Your task to perform on an android device: change notifications settings Image 0: 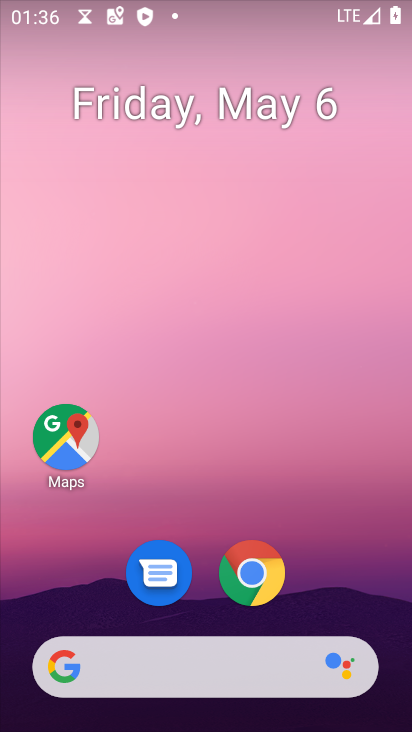
Step 0: drag from (303, 527) to (271, 282)
Your task to perform on an android device: change notifications settings Image 1: 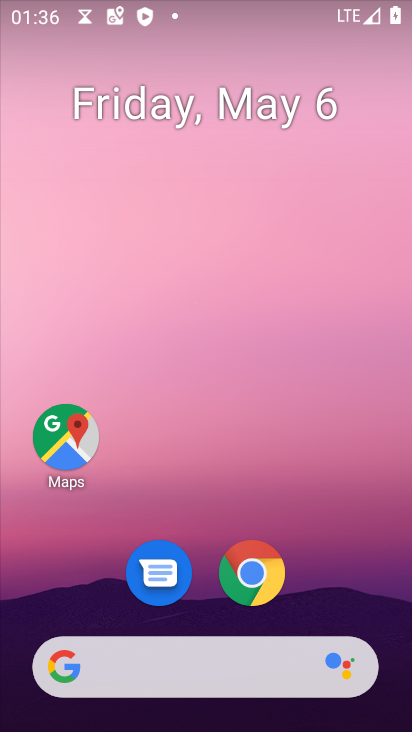
Step 1: drag from (340, 579) to (324, 259)
Your task to perform on an android device: change notifications settings Image 2: 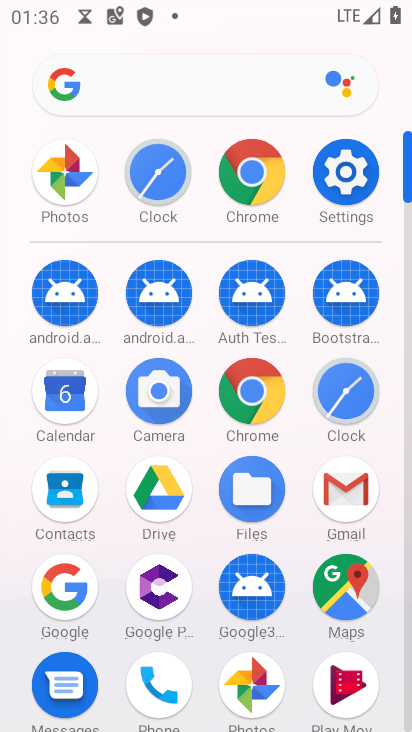
Step 2: click (351, 156)
Your task to perform on an android device: change notifications settings Image 3: 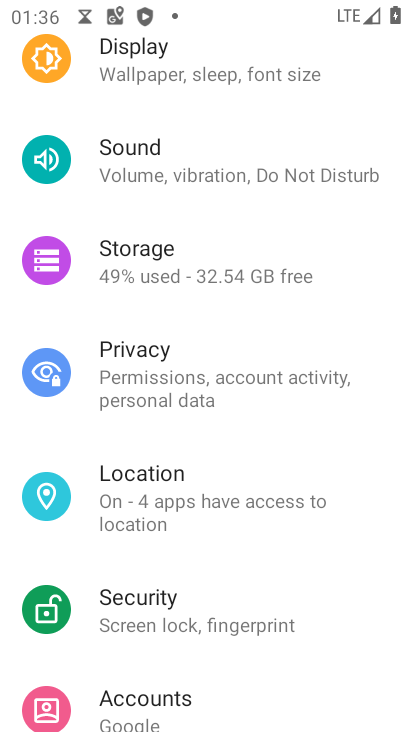
Step 3: drag from (198, 105) to (202, 563)
Your task to perform on an android device: change notifications settings Image 4: 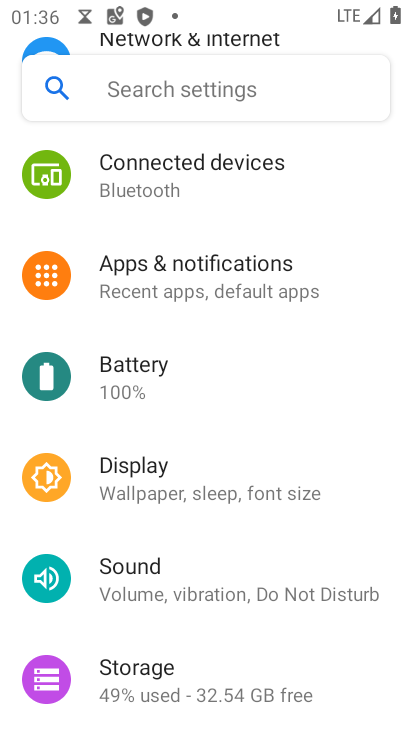
Step 4: click (191, 262)
Your task to perform on an android device: change notifications settings Image 5: 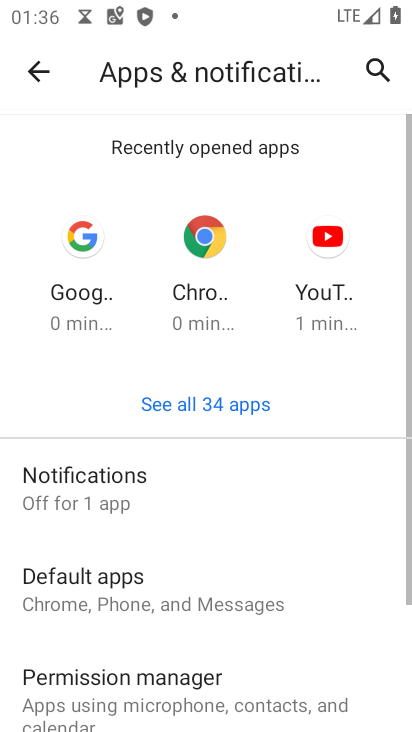
Step 5: click (101, 477)
Your task to perform on an android device: change notifications settings Image 6: 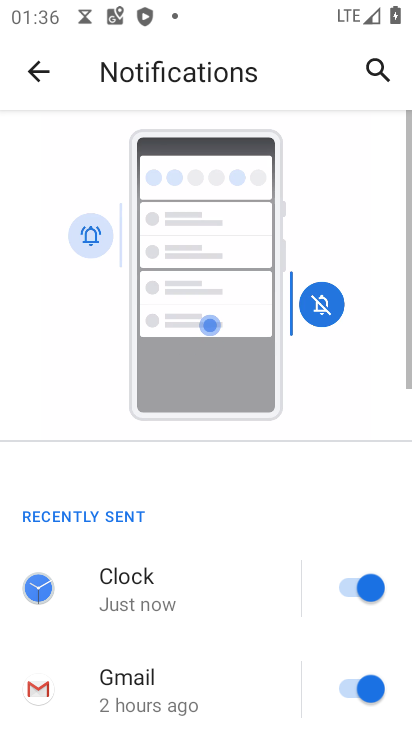
Step 6: drag from (269, 624) to (325, 252)
Your task to perform on an android device: change notifications settings Image 7: 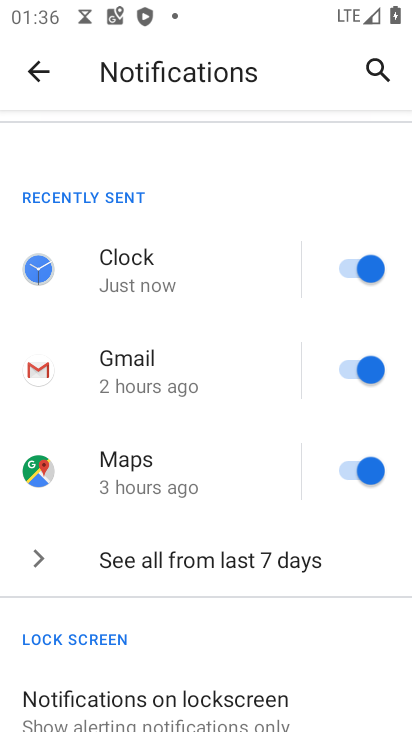
Step 7: click (227, 557)
Your task to perform on an android device: change notifications settings Image 8: 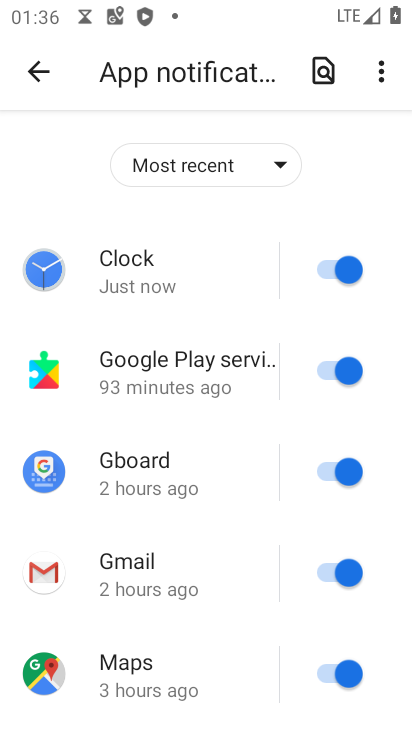
Step 8: click (328, 282)
Your task to perform on an android device: change notifications settings Image 9: 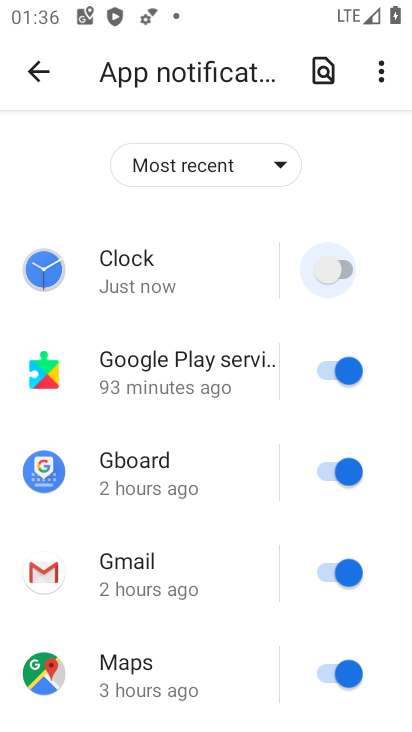
Step 9: click (314, 376)
Your task to perform on an android device: change notifications settings Image 10: 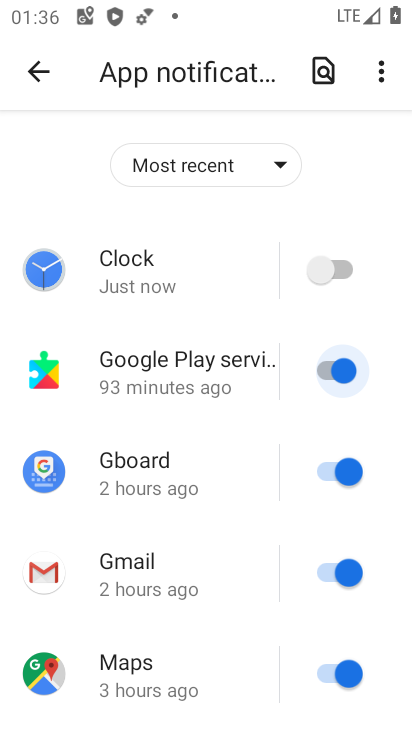
Step 10: click (329, 459)
Your task to perform on an android device: change notifications settings Image 11: 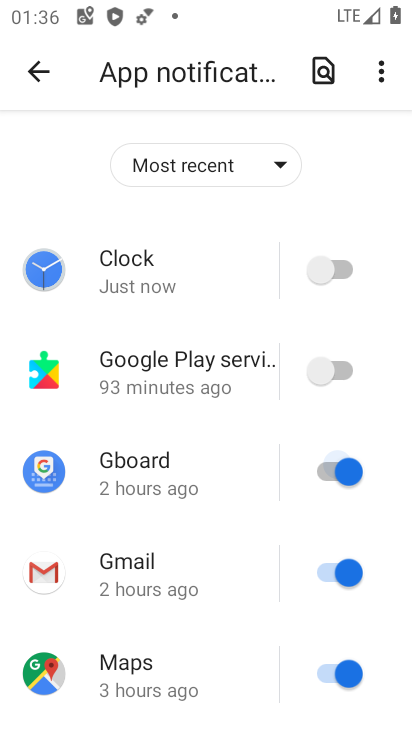
Step 11: click (333, 552)
Your task to perform on an android device: change notifications settings Image 12: 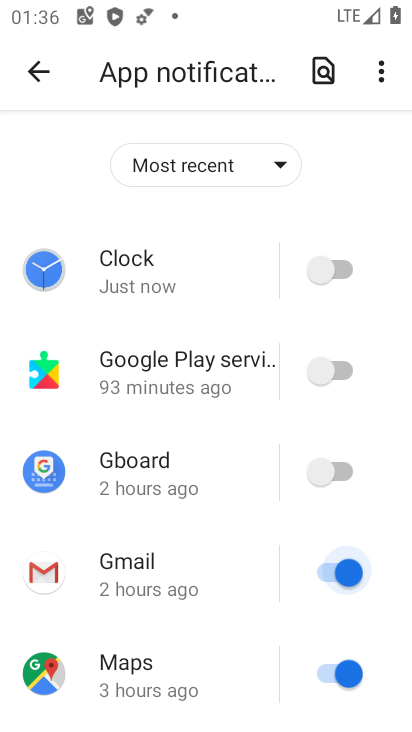
Step 12: click (334, 651)
Your task to perform on an android device: change notifications settings Image 13: 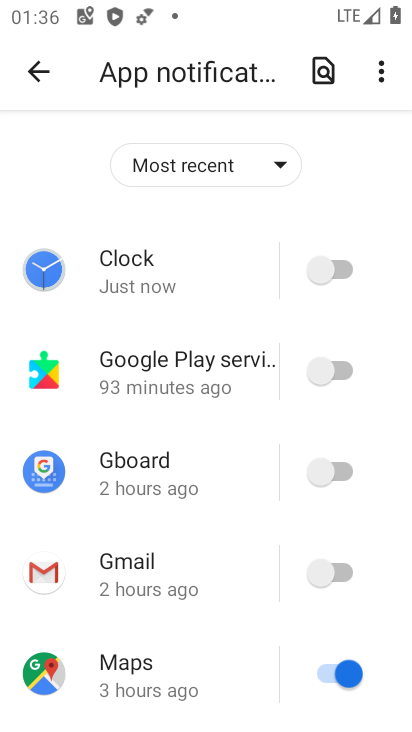
Step 13: drag from (233, 645) to (249, 170)
Your task to perform on an android device: change notifications settings Image 14: 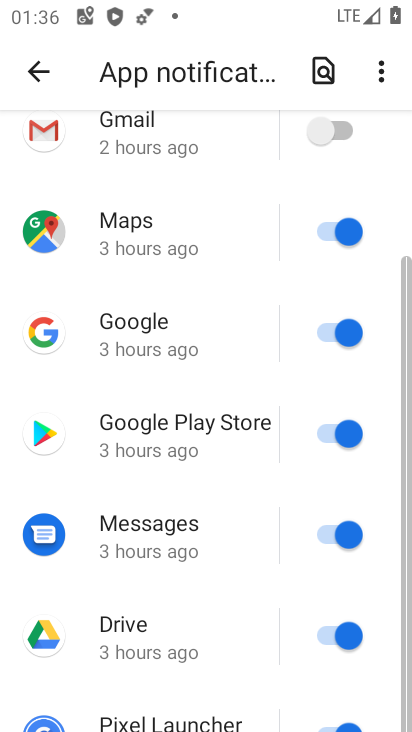
Step 14: click (309, 225)
Your task to perform on an android device: change notifications settings Image 15: 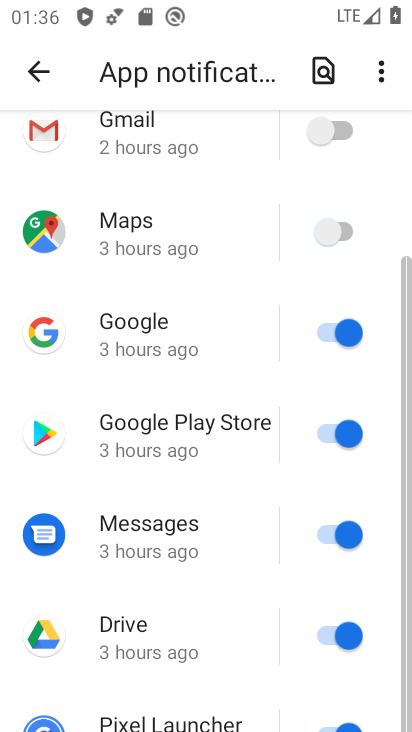
Step 15: click (340, 333)
Your task to perform on an android device: change notifications settings Image 16: 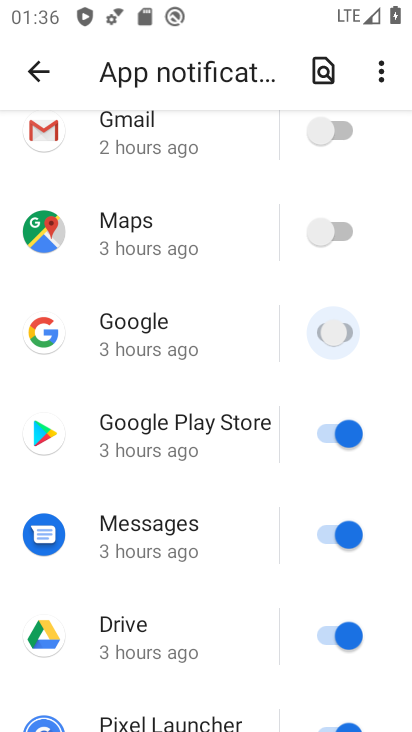
Step 16: click (320, 430)
Your task to perform on an android device: change notifications settings Image 17: 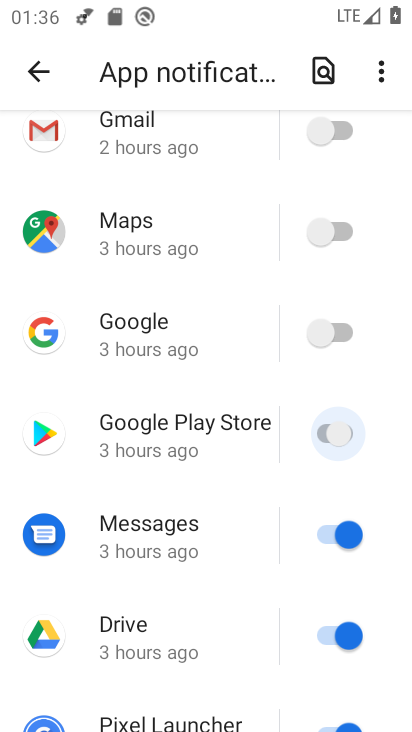
Step 17: click (344, 535)
Your task to perform on an android device: change notifications settings Image 18: 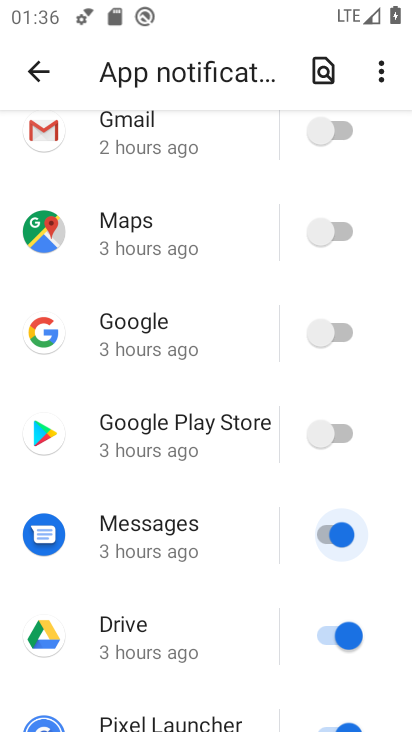
Step 18: drag from (337, 597) to (346, 645)
Your task to perform on an android device: change notifications settings Image 19: 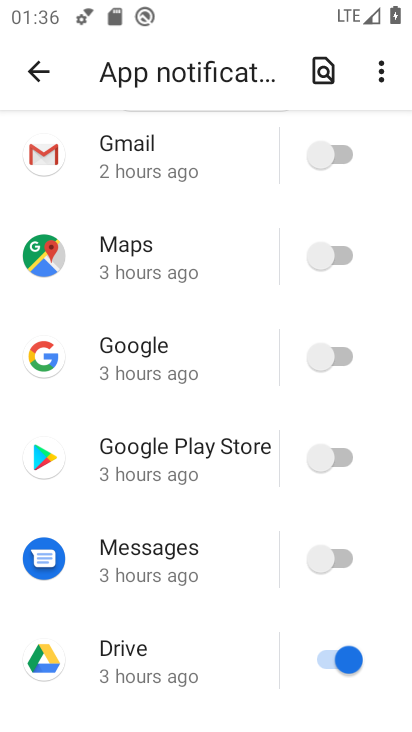
Step 19: drag from (270, 586) to (257, 186)
Your task to perform on an android device: change notifications settings Image 20: 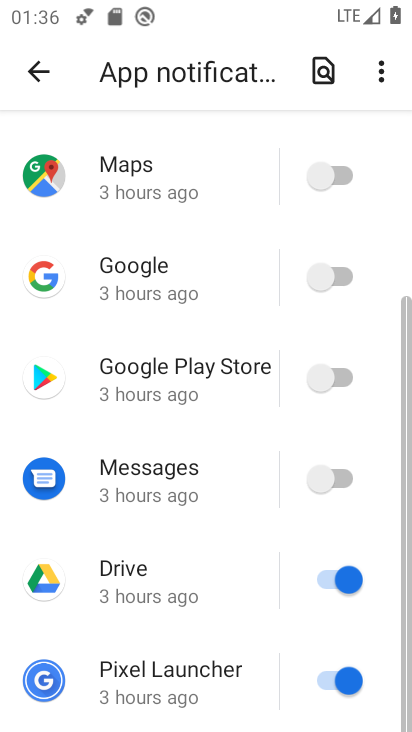
Step 20: click (312, 583)
Your task to perform on an android device: change notifications settings Image 21: 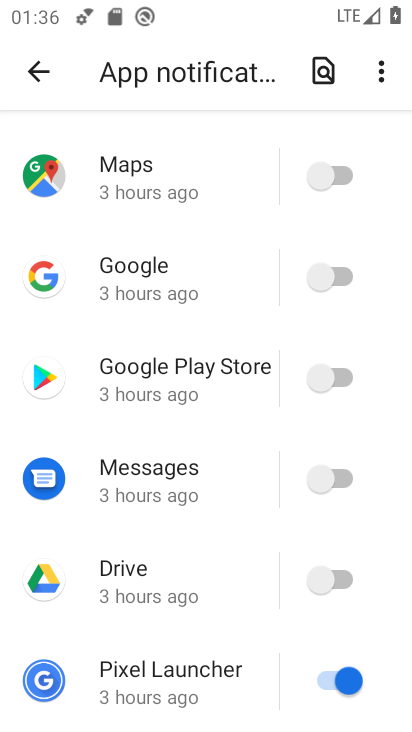
Step 21: click (325, 678)
Your task to perform on an android device: change notifications settings Image 22: 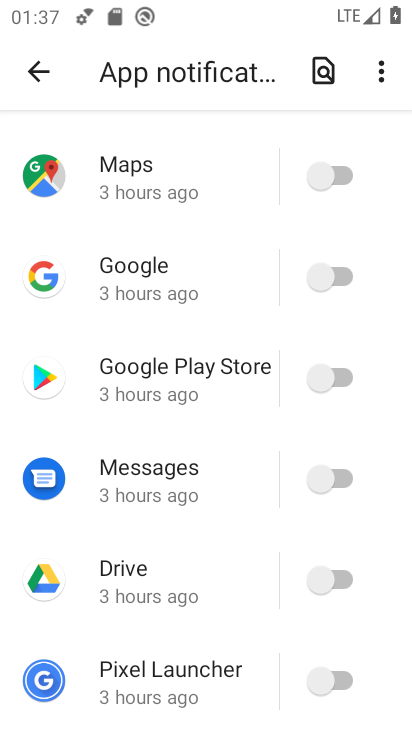
Step 22: task complete